Your task to perform on an android device: find which apps use the phone's location Image 0: 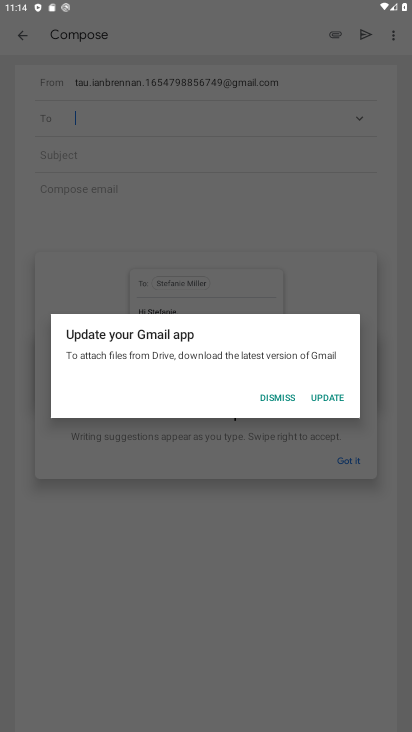
Step 0: press home button
Your task to perform on an android device: find which apps use the phone's location Image 1: 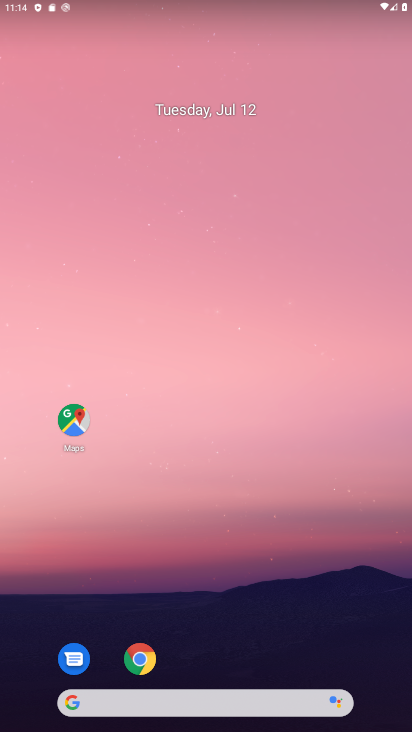
Step 1: drag from (252, 683) to (249, 247)
Your task to perform on an android device: find which apps use the phone's location Image 2: 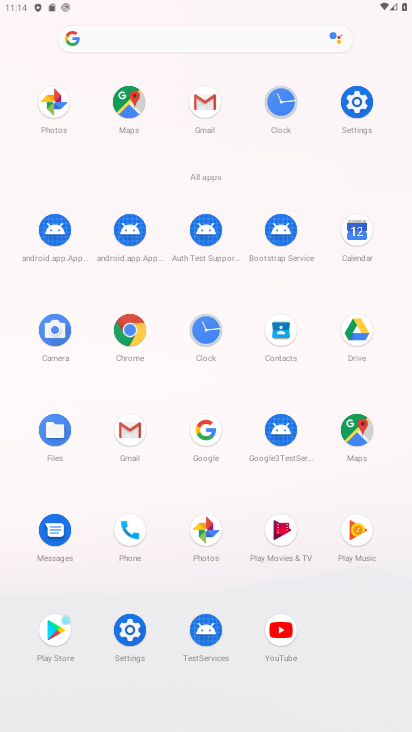
Step 2: click (115, 642)
Your task to perform on an android device: find which apps use the phone's location Image 3: 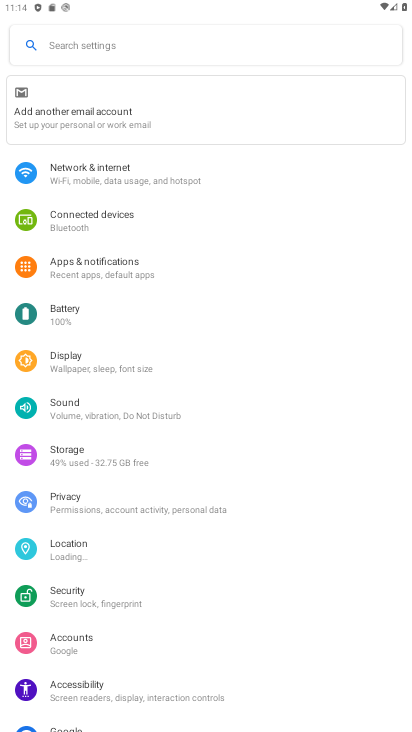
Step 3: click (101, 557)
Your task to perform on an android device: find which apps use the phone's location Image 4: 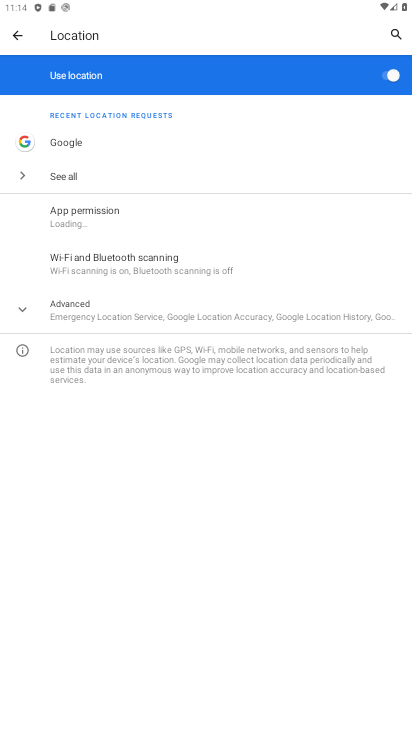
Step 4: click (150, 215)
Your task to perform on an android device: find which apps use the phone's location Image 5: 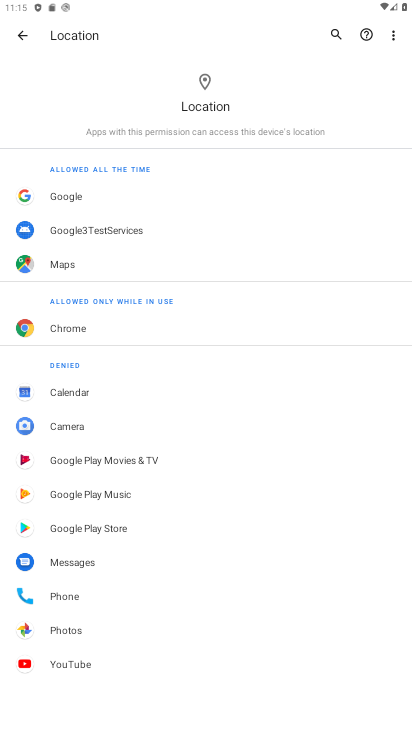
Step 5: task complete